Your task to perform on an android device: Do I have any events today? Image 0: 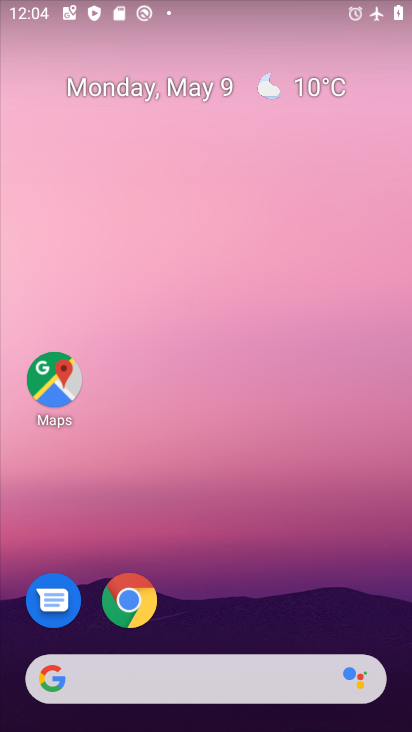
Step 0: drag from (181, 591) to (216, 162)
Your task to perform on an android device: Do I have any events today? Image 1: 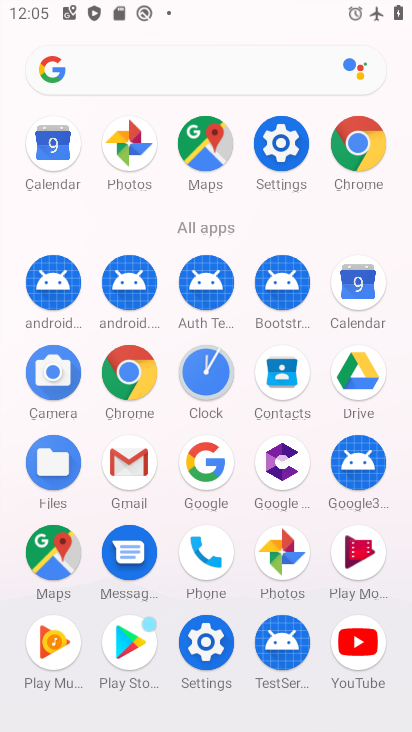
Step 1: click (359, 288)
Your task to perform on an android device: Do I have any events today? Image 2: 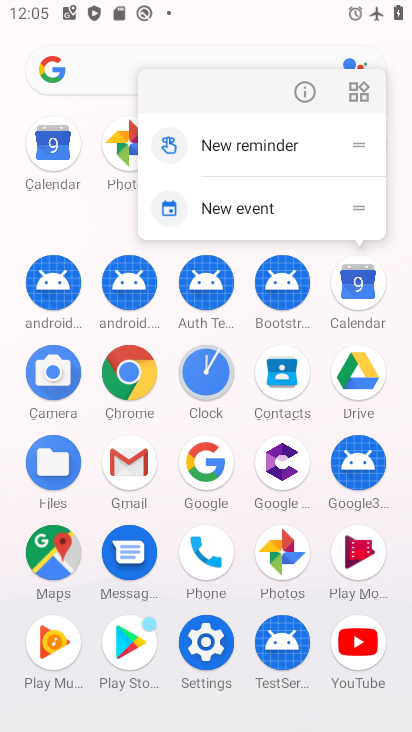
Step 2: click (297, 93)
Your task to perform on an android device: Do I have any events today? Image 3: 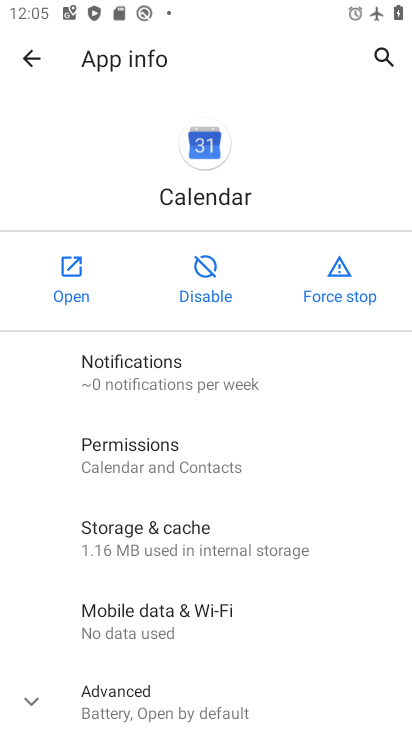
Step 3: click (76, 274)
Your task to perform on an android device: Do I have any events today? Image 4: 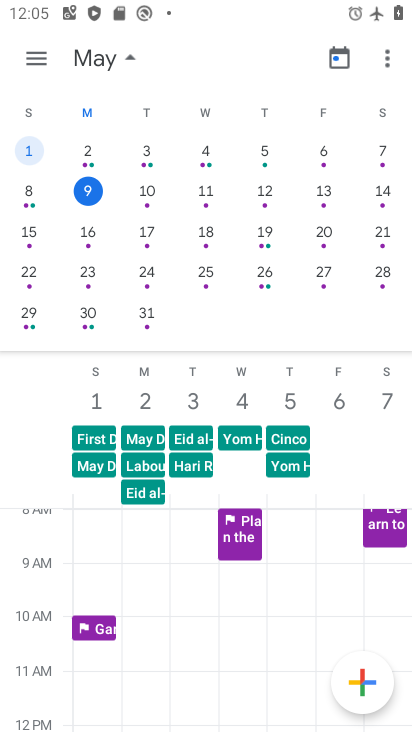
Step 4: task complete